Your task to perform on an android device: make emails show in primary in the gmail app Image 0: 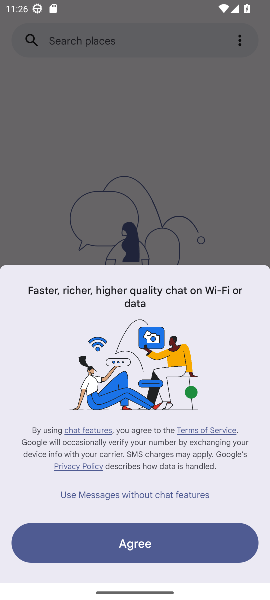
Step 0: task complete